Your task to perform on an android device: Go to sound settings Image 0: 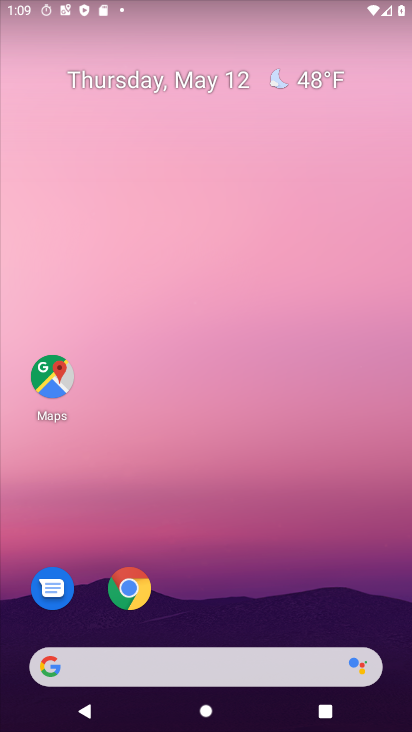
Step 0: drag from (231, 595) to (219, 114)
Your task to perform on an android device: Go to sound settings Image 1: 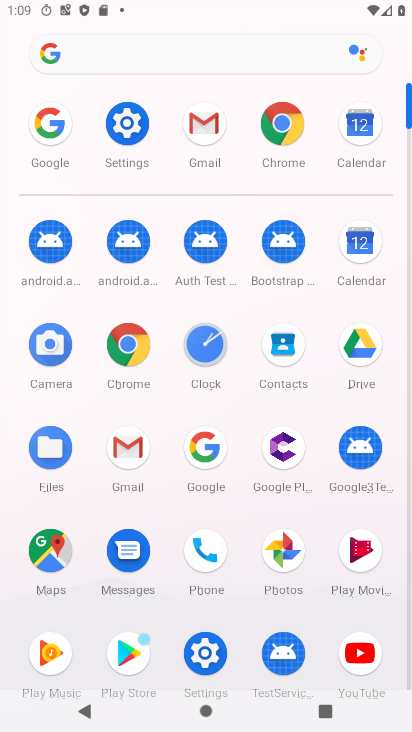
Step 1: click (208, 656)
Your task to perform on an android device: Go to sound settings Image 2: 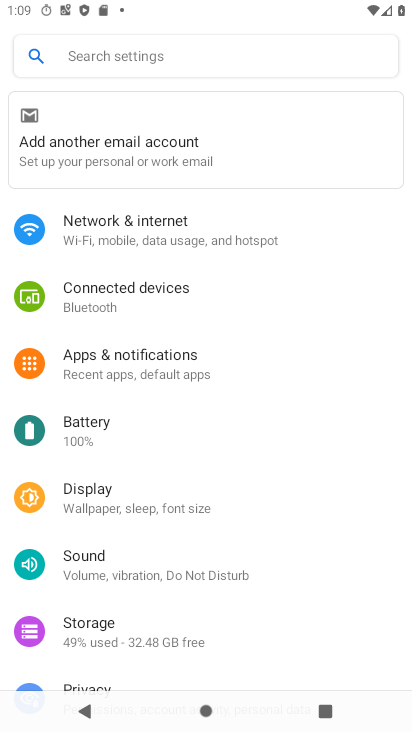
Step 2: click (92, 572)
Your task to perform on an android device: Go to sound settings Image 3: 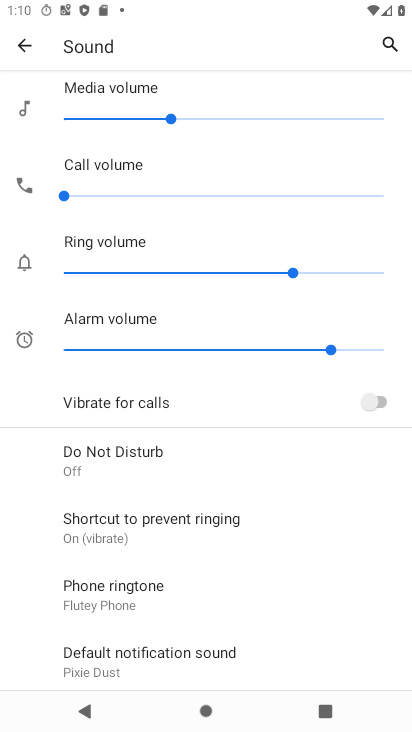
Step 3: task complete